Your task to perform on an android device: Go to Google maps Image 0: 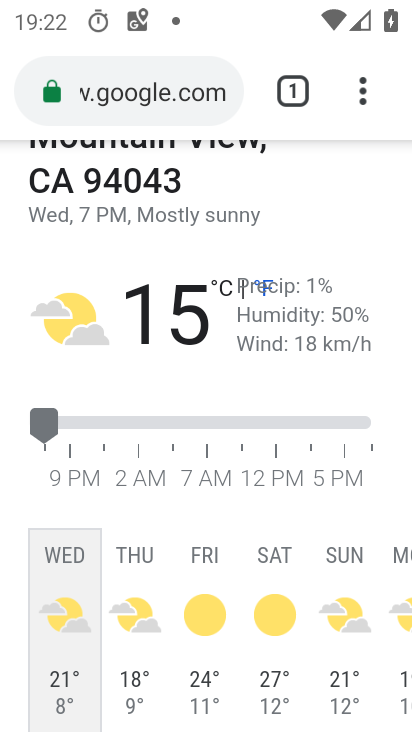
Step 0: press home button
Your task to perform on an android device: Go to Google maps Image 1: 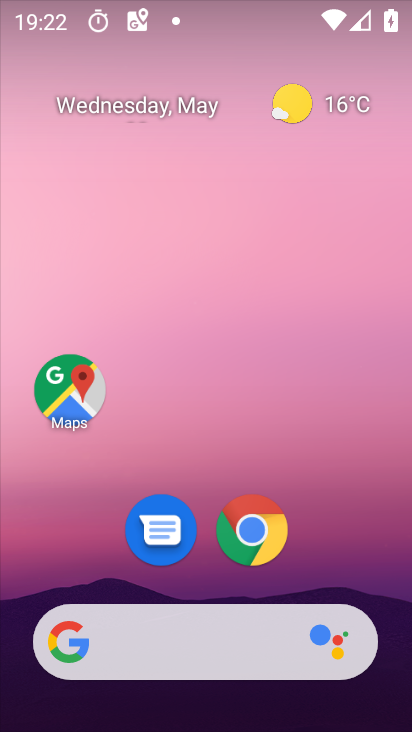
Step 1: drag from (213, 560) to (272, 95)
Your task to perform on an android device: Go to Google maps Image 2: 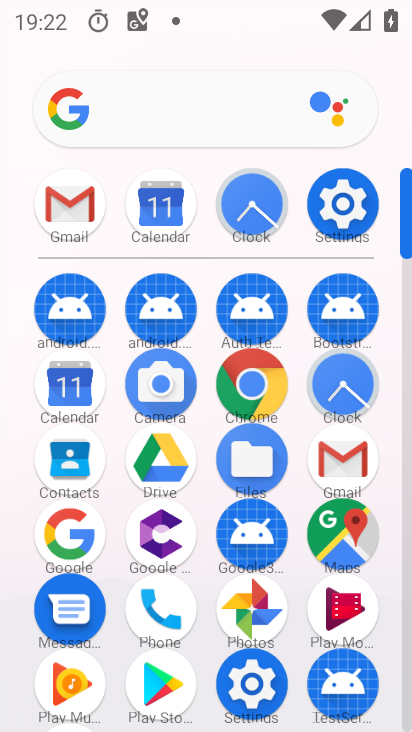
Step 2: click (69, 538)
Your task to perform on an android device: Go to Google maps Image 3: 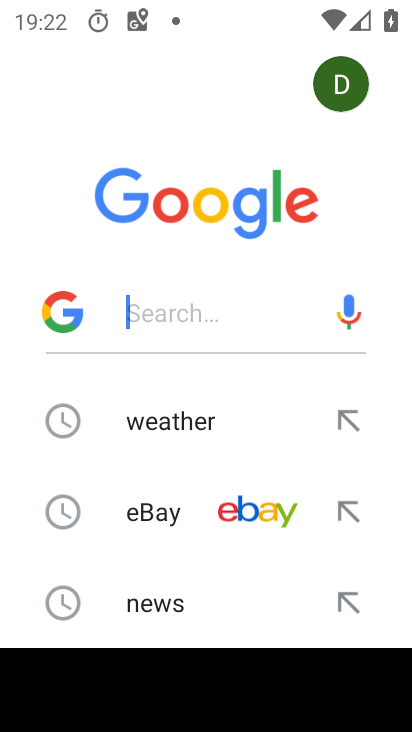
Step 3: task complete